Your task to perform on an android device: Search for sushi restaurants on Maps Image 0: 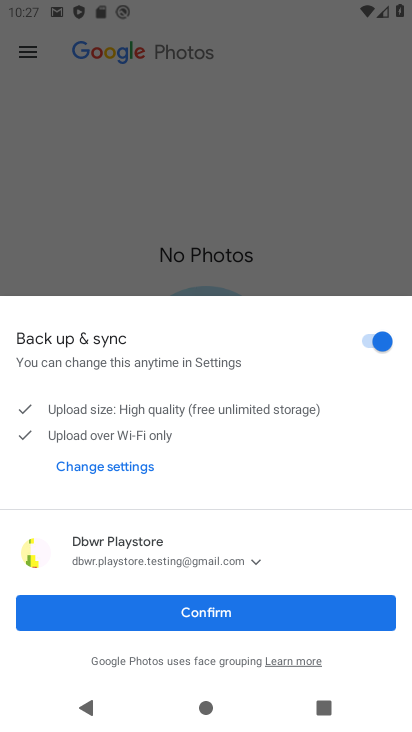
Step 0: press back button
Your task to perform on an android device: Search for sushi restaurants on Maps Image 1: 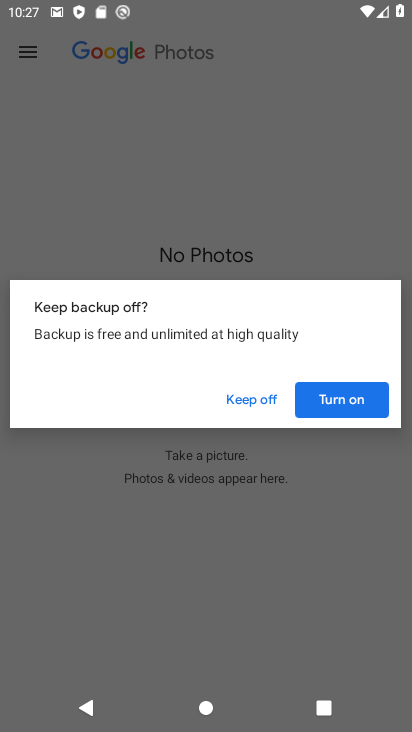
Step 1: press back button
Your task to perform on an android device: Search for sushi restaurants on Maps Image 2: 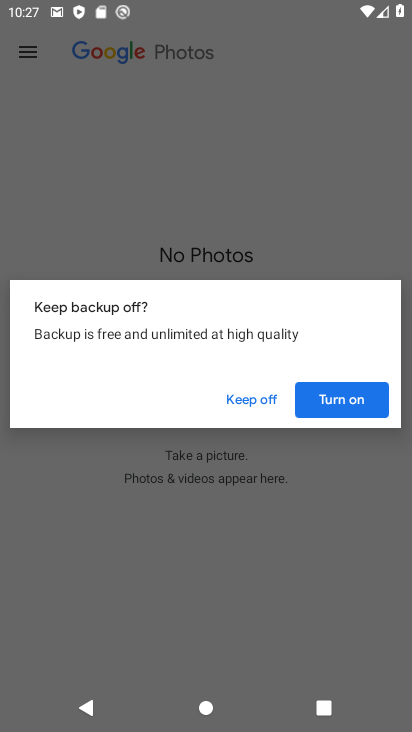
Step 2: press home button
Your task to perform on an android device: Search for sushi restaurants on Maps Image 3: 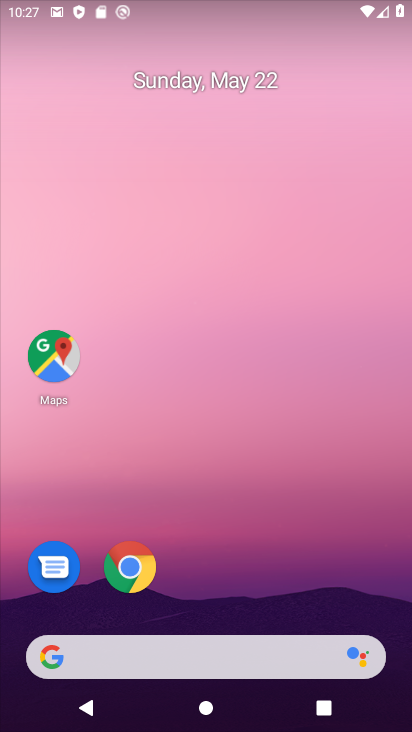
Step 3: drag from (238, 456) to (202, 5)
Your task to perform on an android device: Search for sushi restaurants on Maps Image 4: 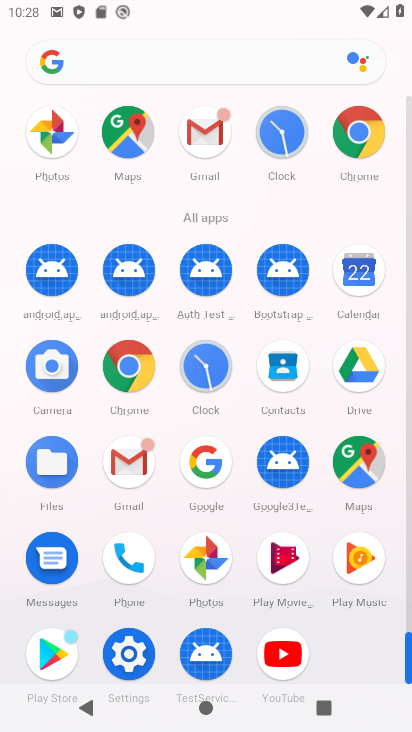
Step 4: click (358, 453)
Your task to perform on an android device: Search for sushi restaurants on Maps Image 5: 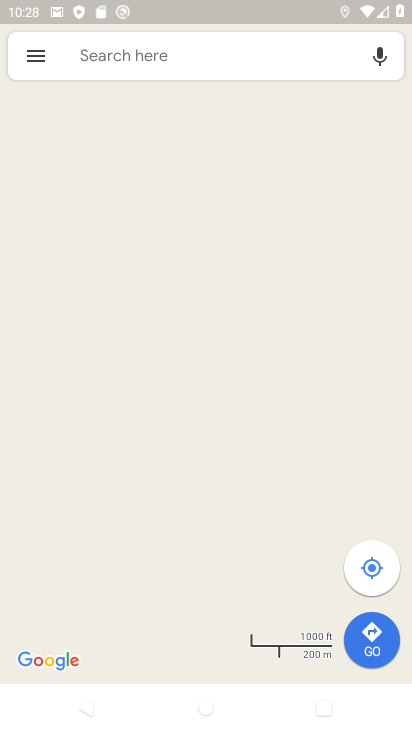
Step 5: click (193, 40)
Your task to perform on an android device: Search for sushi restaurants on Maps Image 6: 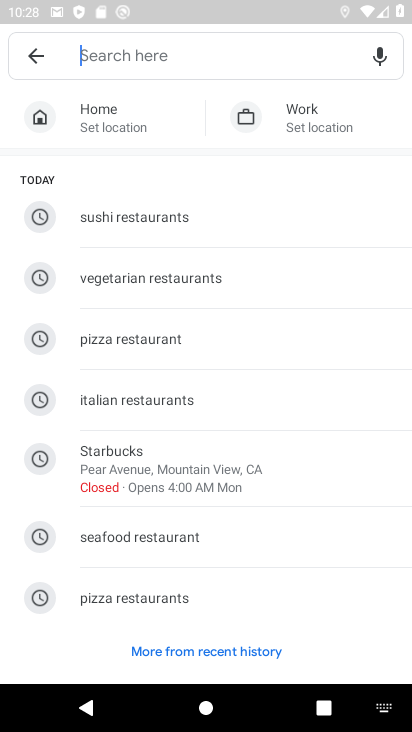
Step 6: type "sushi restaurants"
Your task to perform on an android device: Search for sushi restaurants on Maps Image 7: 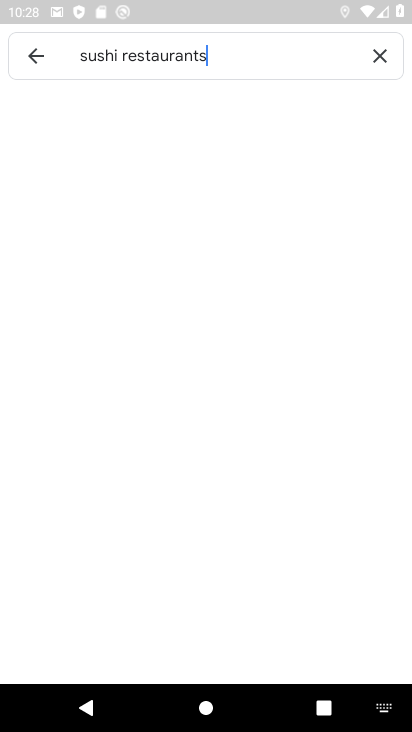
Step 7: type ""
Your task to perform on an android device: Search for sushi restaurants on Maps Image 8: 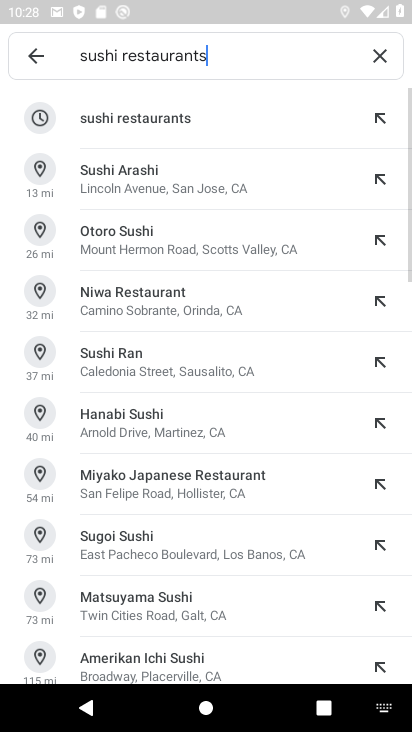
Step 8: click (189, 123)
Your task to perform on an android device: Search for sushi restaurants on Maps Image 9: 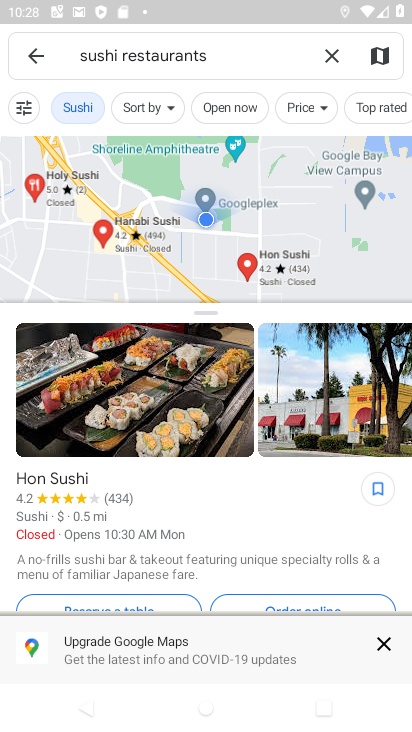
Step 9: task complete